Your task to perform on an android device: turn on translation in the chrome app Image 0: 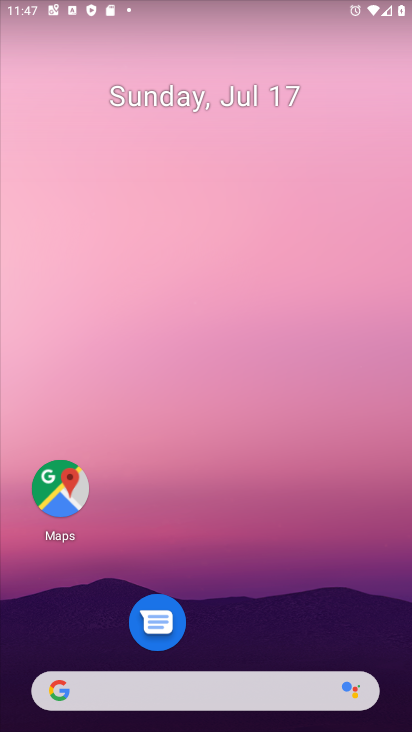
Step 0: drag from (177, 723) to (191, 5)
Your task to perform on an android device: turn on translation in the chrome app Image 1: 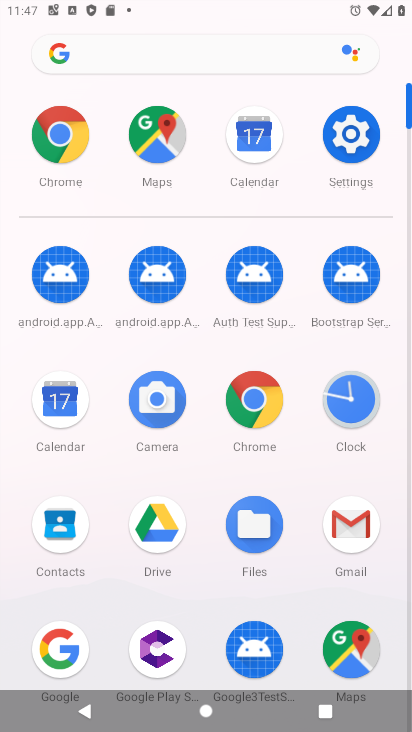
Step 1: click (52, 135)
Your task to perform on an android device: turn on translation in the chrome app Image 2: 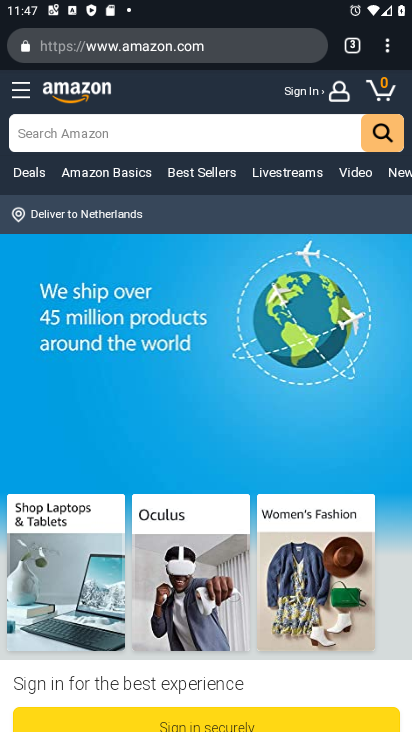
Step 2: click (386, 52)
Your task to perform on an android device: turn on translation in the chrome app Image 3: 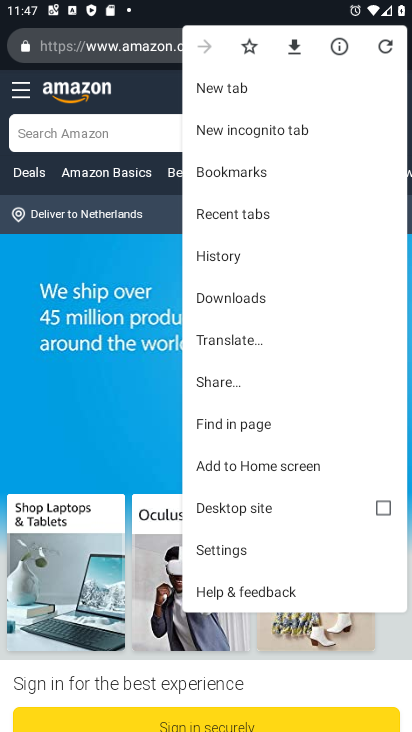
Step 3: click (242, 545)
Your task to perform on an android device: turn on translation in the chrome app Image 4: 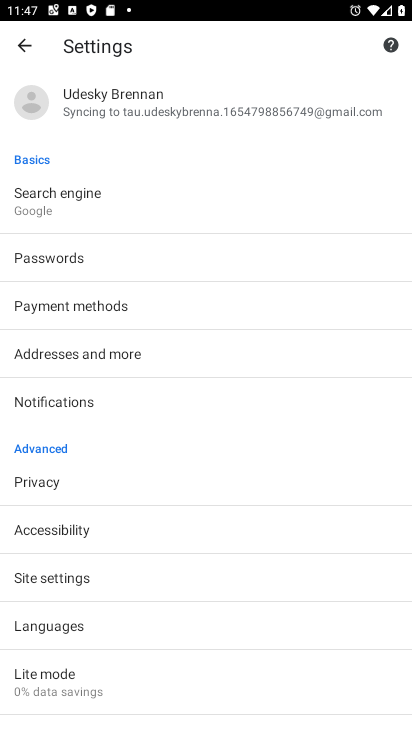
Step 4: click (95, 625)
Your task to perform on an android device: turn on translation in the chrome app Image 5: 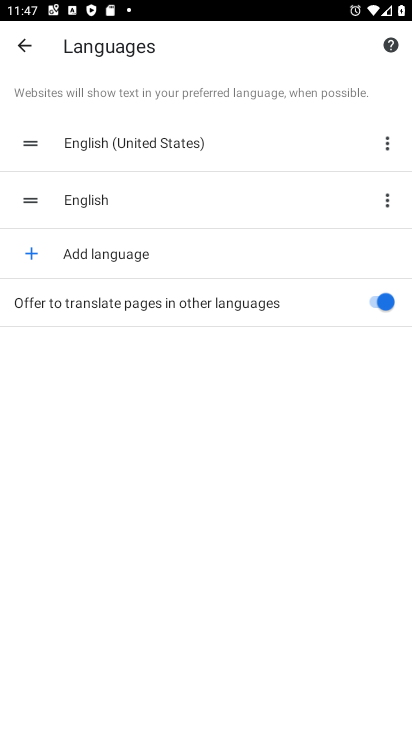
Step 5: task complete